Your task to perform on an android device: Go to notification settings Image 0: 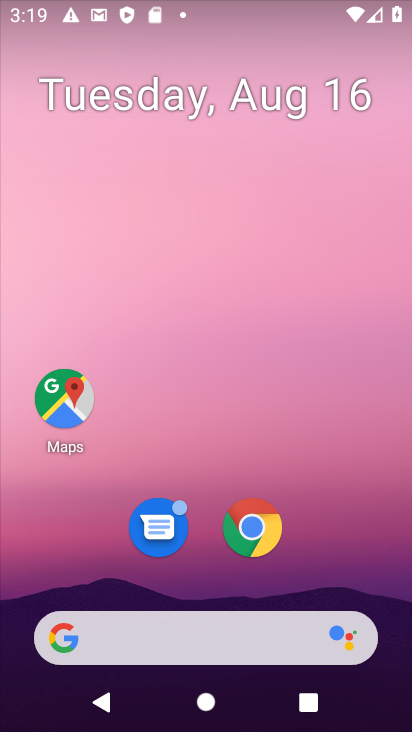
Step 0: drag from (234, 570) to (401, 601)
Your task to perform on an android device: Go to notification settings Image 1: 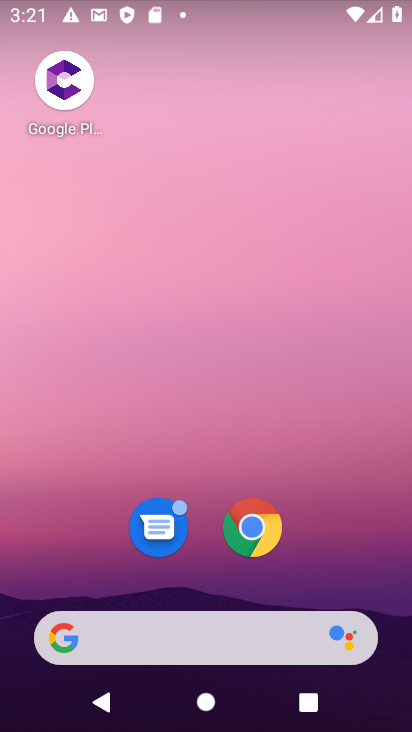
Step 1: drag from (205, 586) to (211, 55)
Your task to perform on an android device: Go to notification settings Image 2: 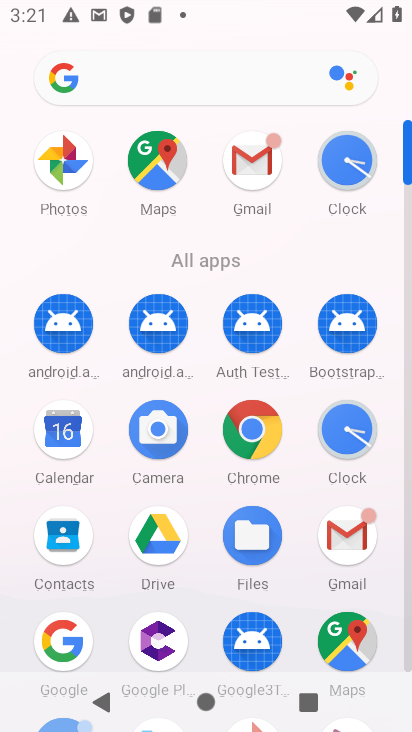
Step 2: drag from (297, 617) to (144, 205)
Your task to perform on an android device: Go to notification settings Image 3: 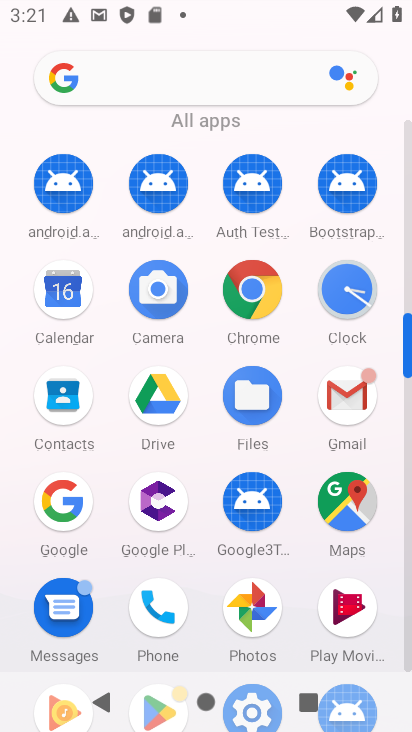
Step 3: drag from (238, 569) to (154, 331)
Your task to perform on an android device: Go to notification settings Image 4: 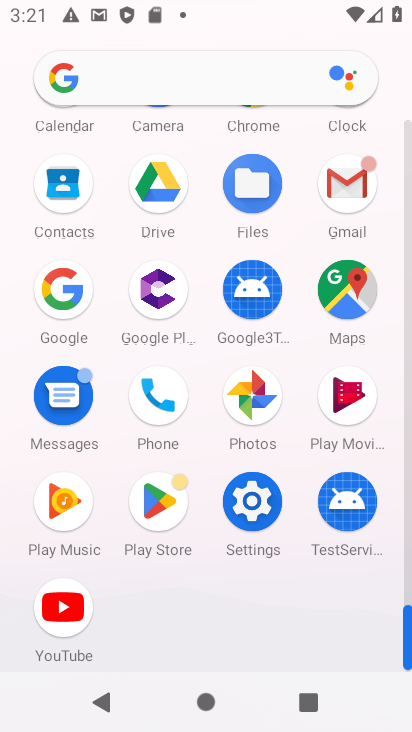
Step 4: click (258, 481)
Your task to perform on an android device: Go to notification settings Image 5: 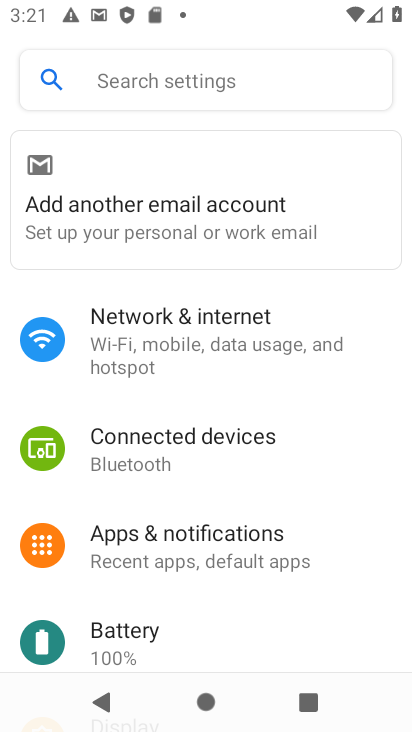
Step 5: click (171, 531)
Your task to perform on an android device: Go to notification settings Image 6: 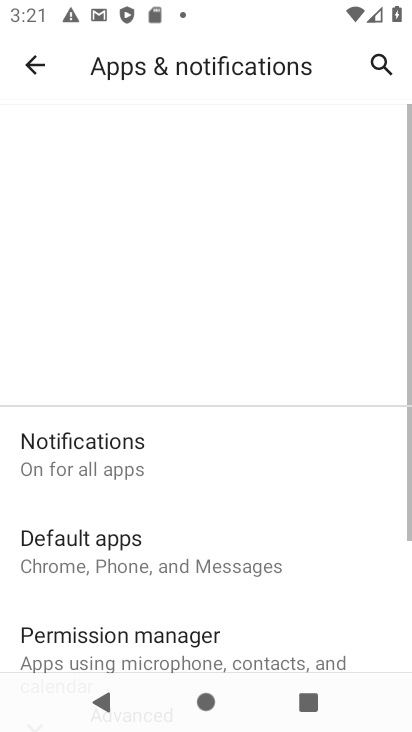
Step 6: task complete